Your task to perform on an android device: add a contact in the contacts app Image 0: 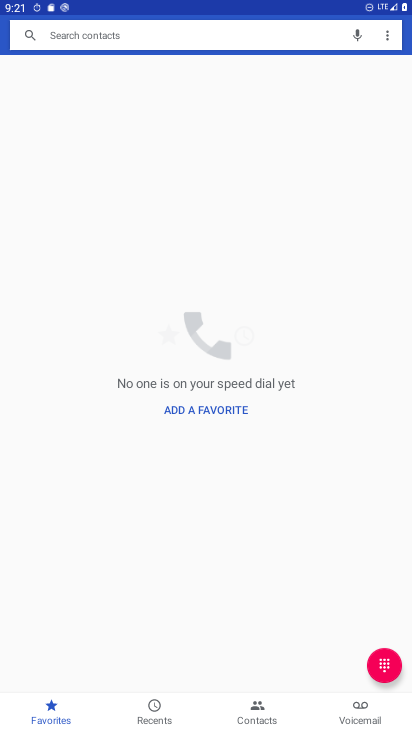
Step 0: press home button
Your task to perform on an android device: add a contact in the contacts app Image 1: 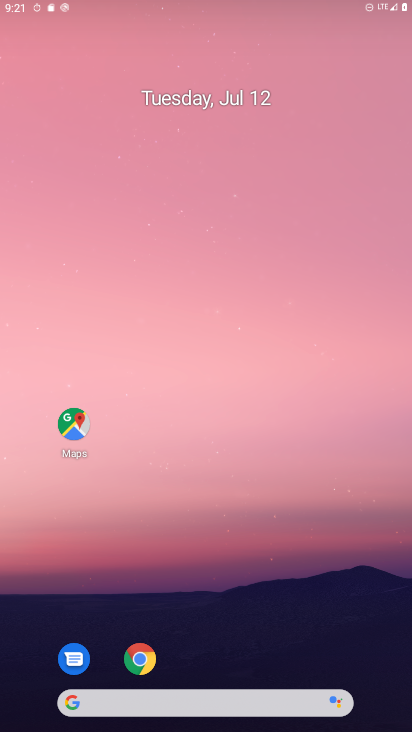
Step 1: drag from (379, 681) to (116, 31)
Your task to perform on an android device: add a contact in the contacts app Image 2: 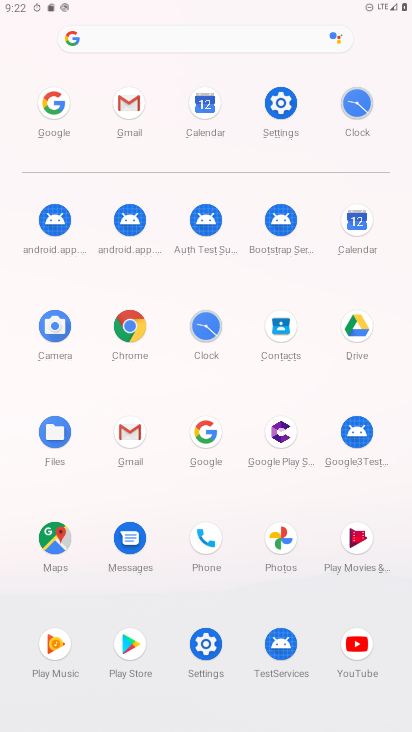
Step 2: click (273, 336)
Your task to perform on an android device: add a contact in the contacts app Image 3: 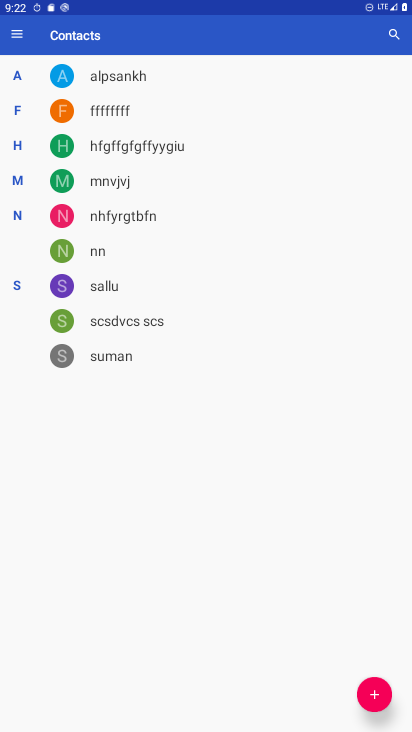
Step 3: click (376, 698)
Your task to perform on an android device: add a contact in the contacts app Image 4: 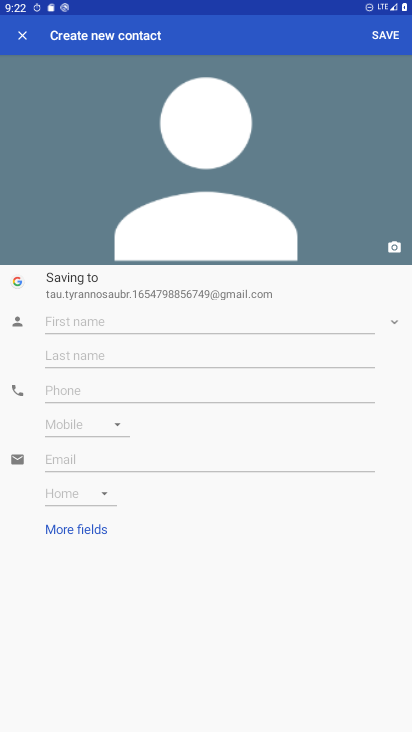
Step 4: click (221, 317)
Your task to perform on an android device: add a contact in the contacts app Image 5: 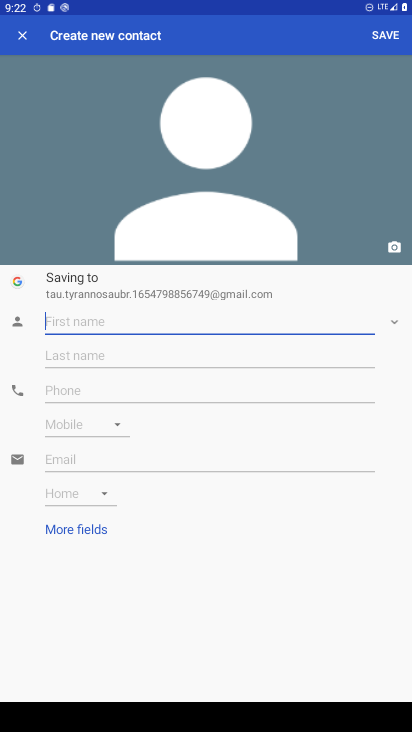
Step 5: type "smart"
Your task to perform on an android device: add a contact in the contacts app Image 6: 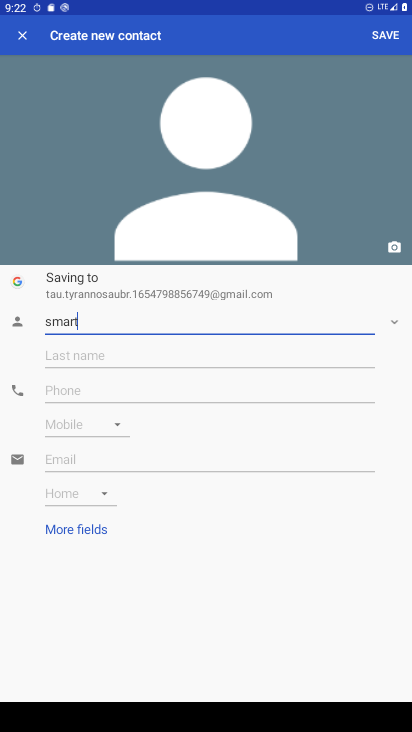
Step 6: click (396, 36)
Your task to perform on an android device: add a contact in the contacts app Image 7: 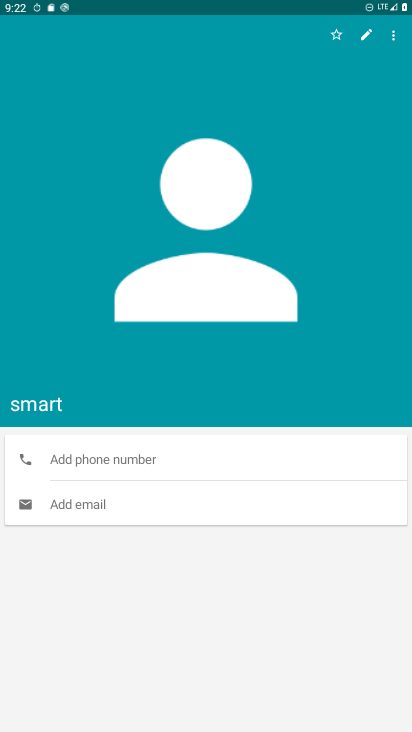
Step 7: task complete